Your task to perform on an android device: set the stopwatch Image 0: 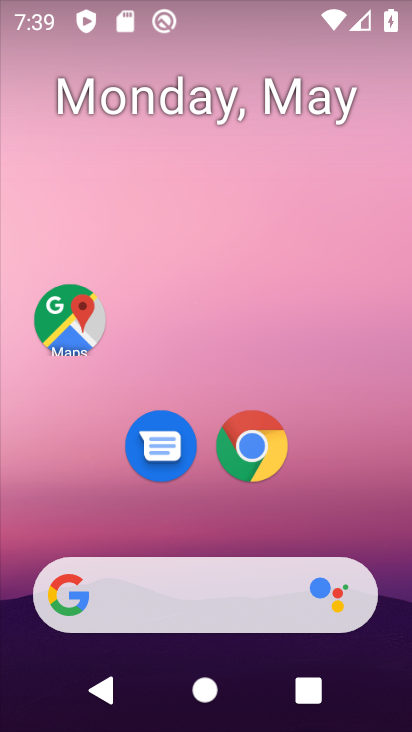
Step 0: drag from (333, 498) to (329, 11)
Your task to perform on an android device: set the stopwatch Image 1: 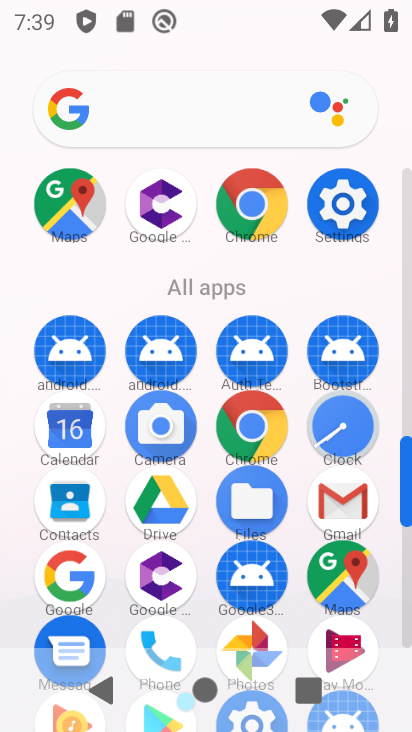
Step 1: click (339, 431)
Your task to perform on an android device: set the stopwatch Image 2: 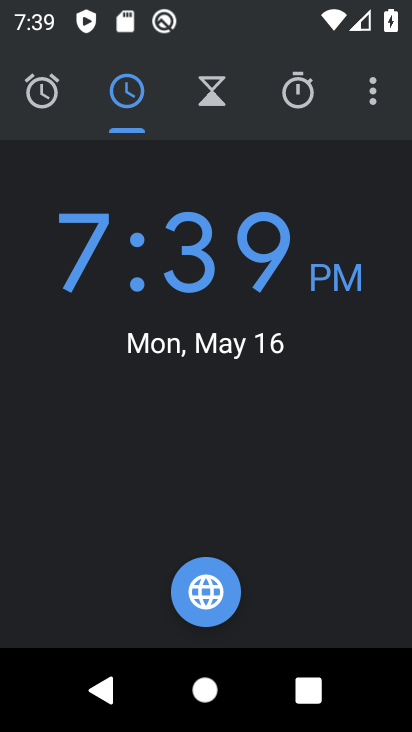
Step 2: click (290, 98)
Your task to perform on an android device: set the stopwatch Image 3: 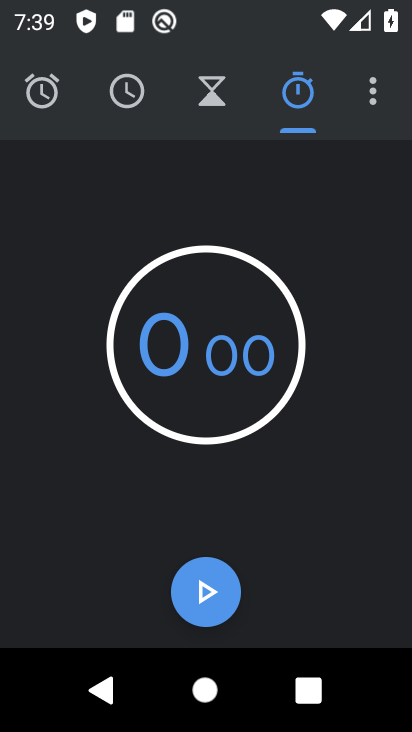
Step 3: click (203, 594)
Your task to perform on an android device: set the stopwatch Image 4: 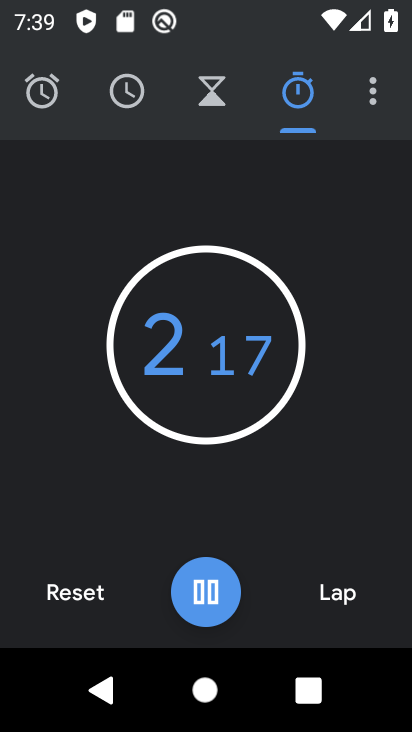
Step 4: click (203, 594)
Your task to perform on an android device: set the stopwatch Image 5: 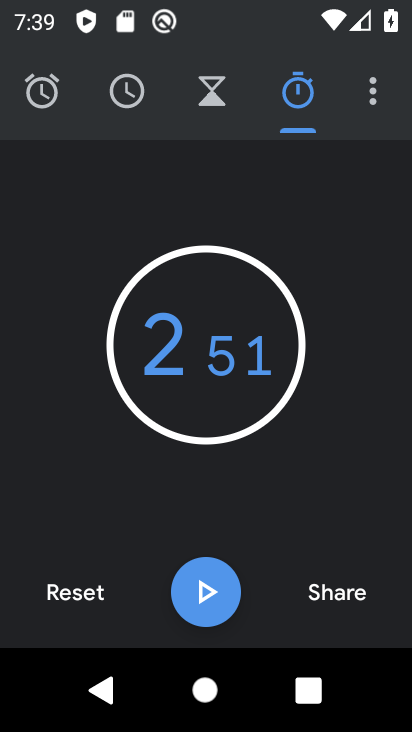
Step 5: task complete